Your task to perform on an android device: Open settings on Google Maps Image 0: 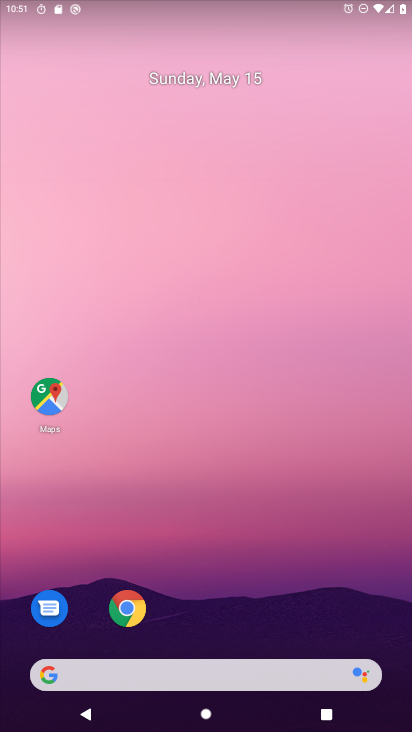
Step 0: drag from (344, 600) to (345, 96)
Your task to perform on an android device: Open settings on Google Maps Image 1: 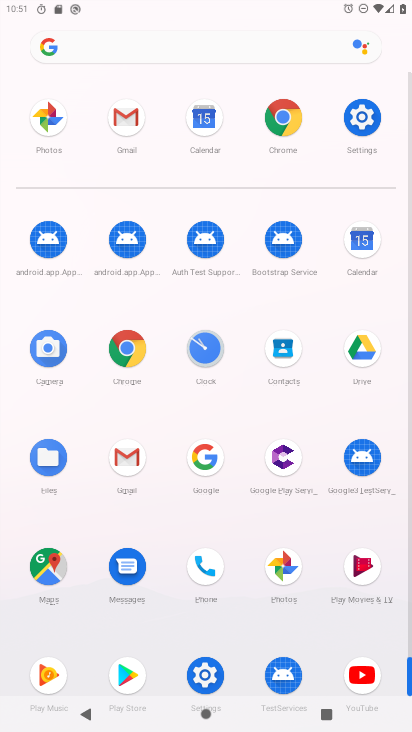
Step 1: click (43, 582)
Your task to perform on an android device: Open settings on Google Maps Image 2: 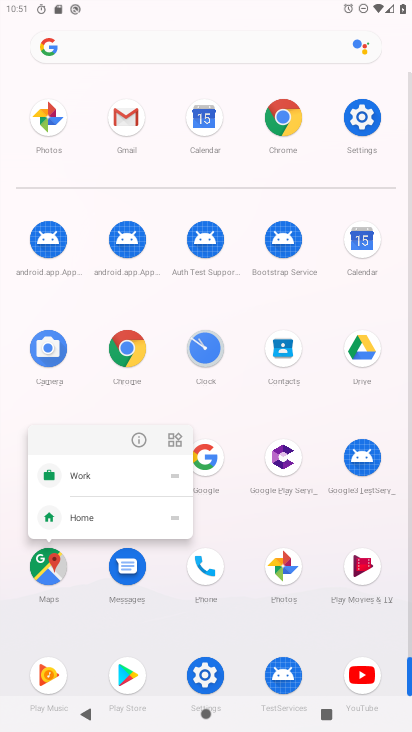
Step 2: click (44, 563)
Your task to perform on an android device: Open settings on Google Maps Image 3: 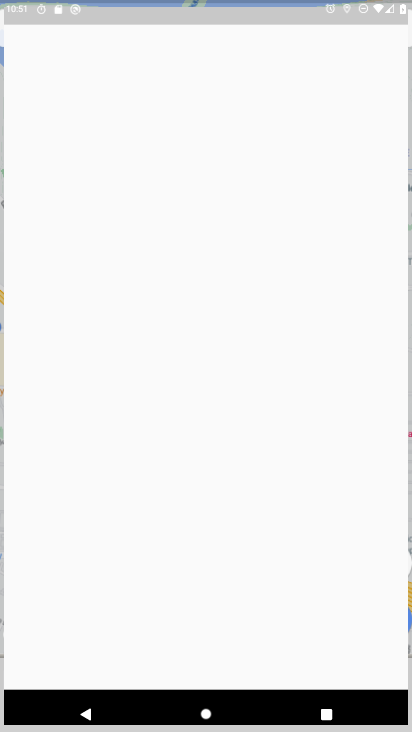
Step 3: click (25, 38)
Your task to perform on an android device: Open settings on Google Maps Image 4: 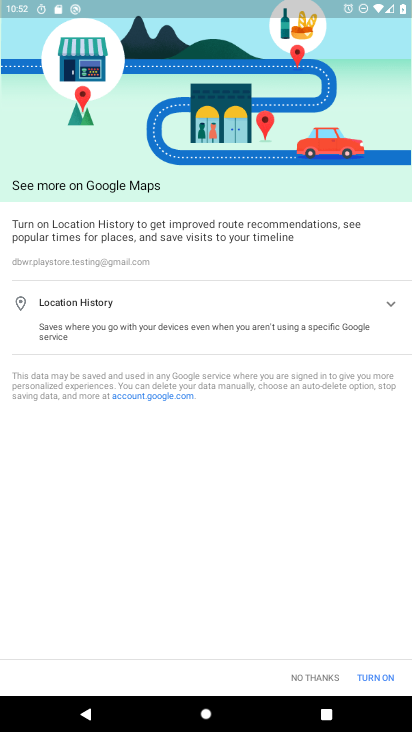
Step 4: click (302, 685)
Your task to perform on an android device: Open settings on Google Maps Image 5: 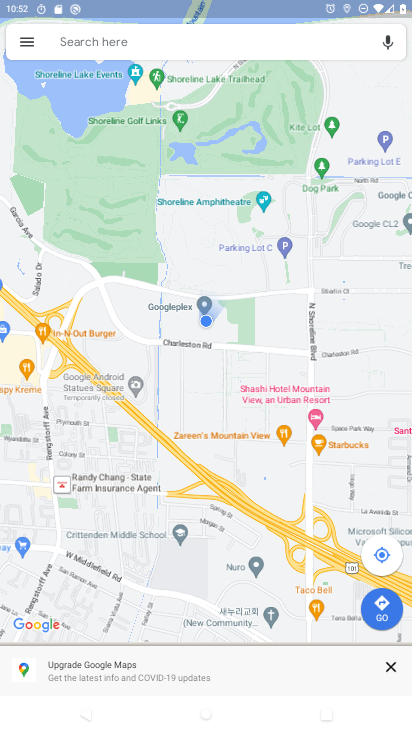
Step 5: click (26, 56)
Your task to perform on an android device: Open settings on Google Maps Image 6: 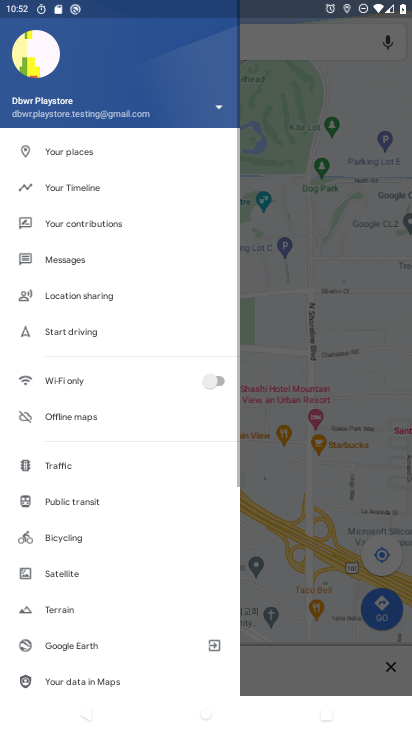
Step 6: click (50, 193)
Your task to perform on an android device: Open settings on Google Maps Image 7: 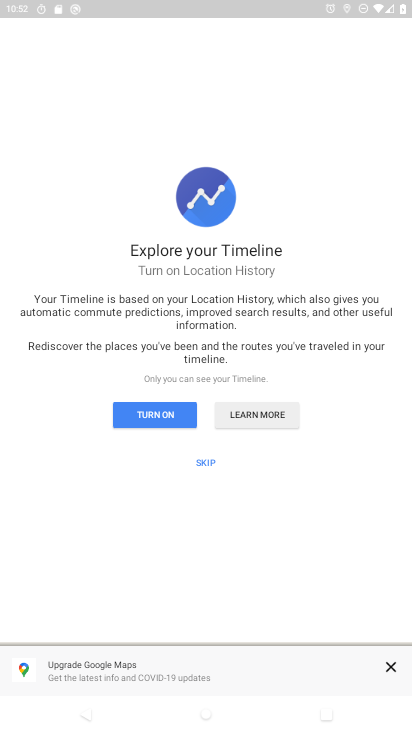
Step 7: click (202, 469)
Your task to perform on an android device: Open settings on Google Maps Image 8: 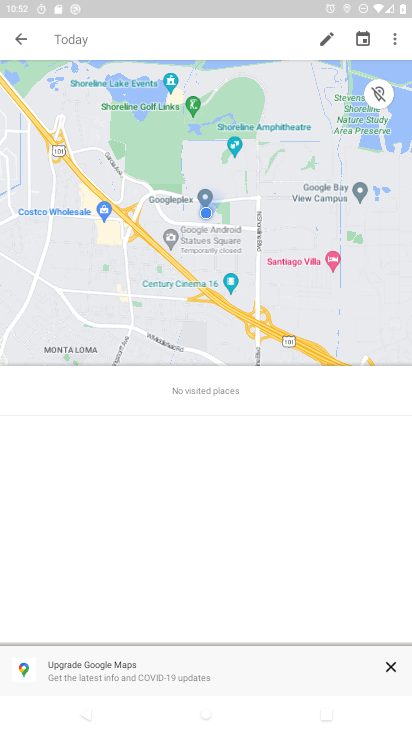
Step 8: task complete